Your task to perform on an android device: Open Yahoo.com Image 0: 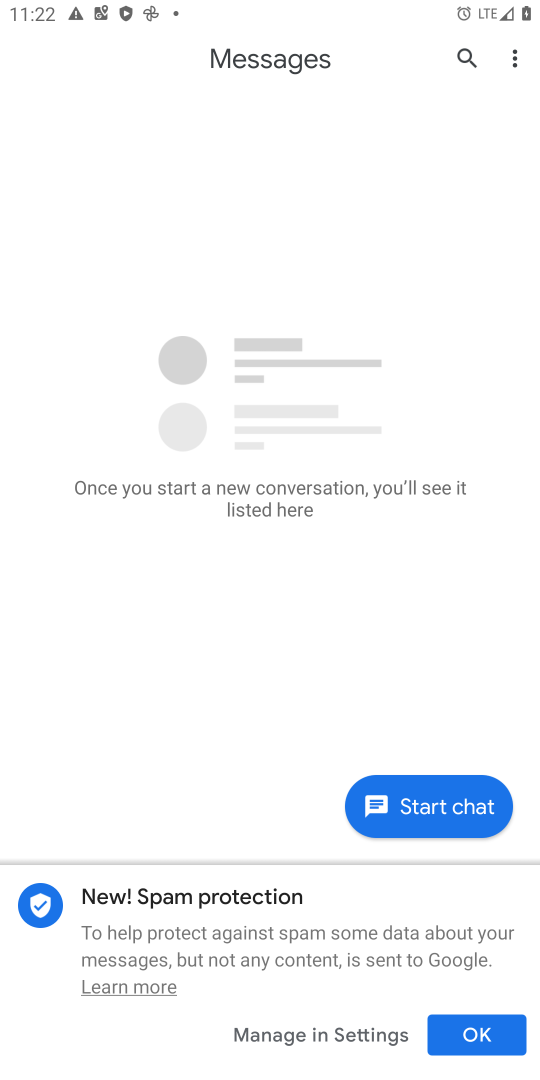
Step 0: press home button
Your task to perform on an android device: Open Yahoo.com Image 1: 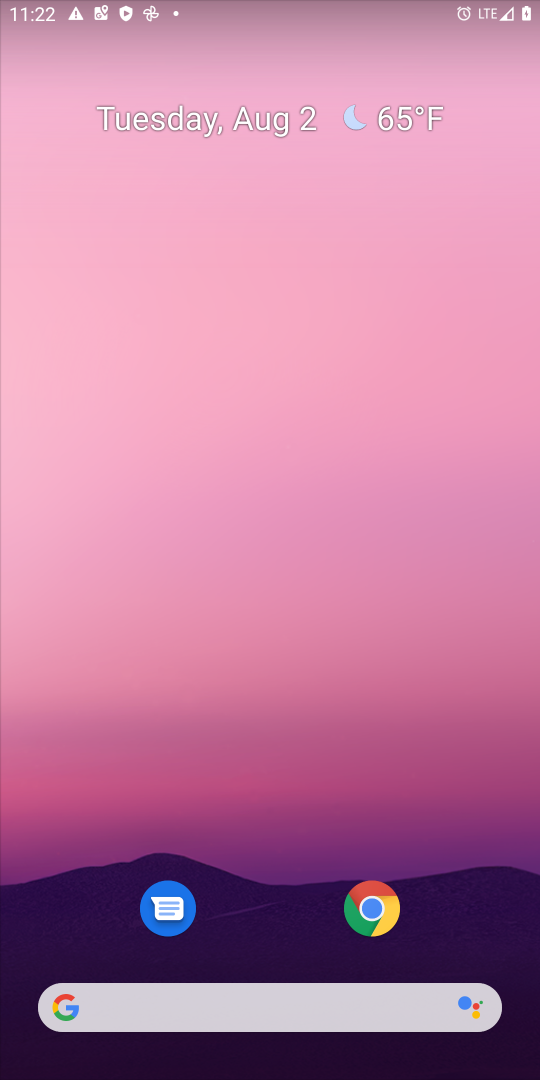
Step 1: drag from (336, 455) to (321, 84)
Your task to perform on an android device: Open Yahoo.com Image 2: 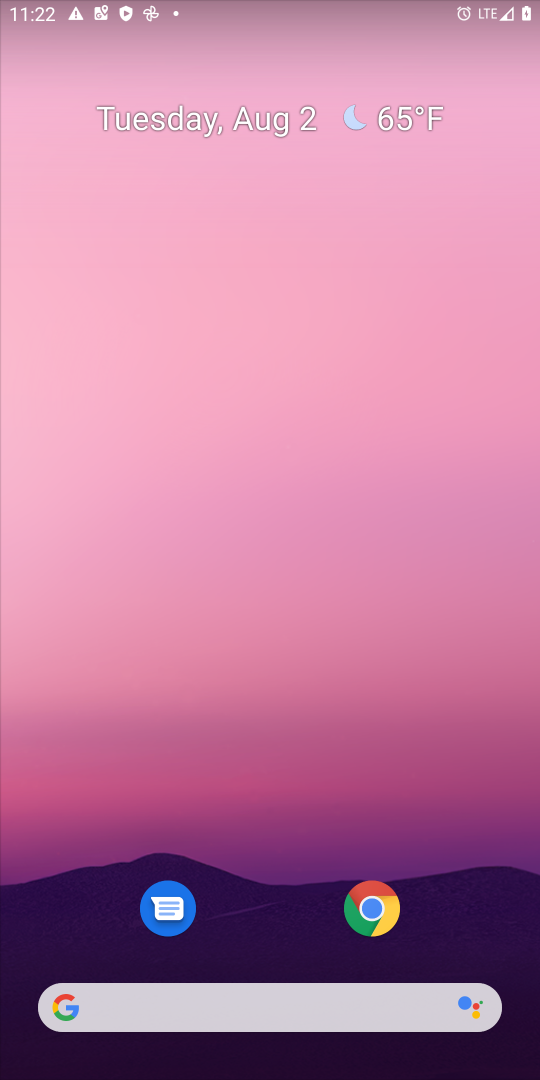
Step 2: drag from (244, 889) to (404, 29)
Your task to perform on an android device: Open Yahoo.com Image 3: 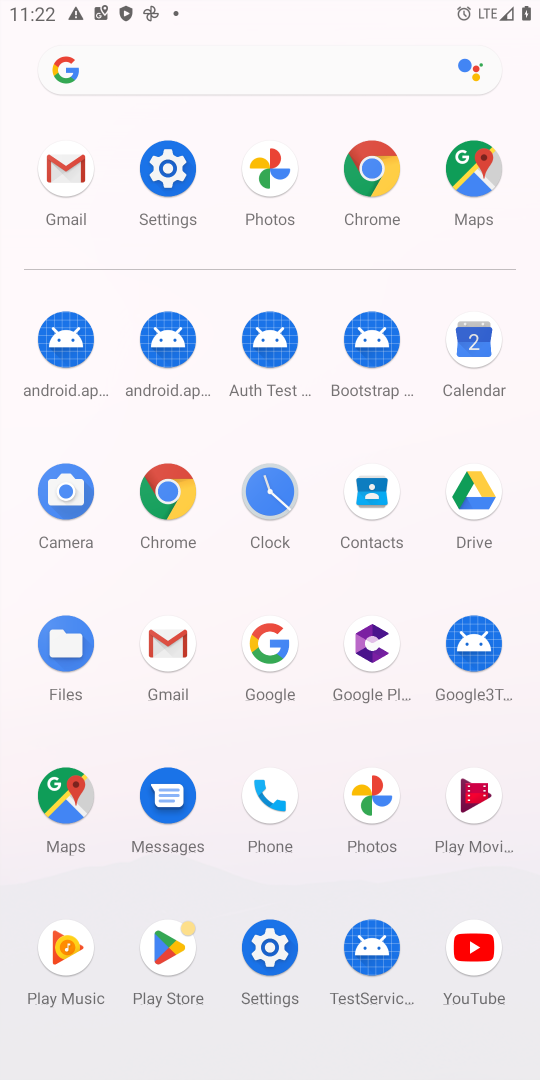
Step 3: click (354, 191)
Your task to perform on an android device: Open Yahoo.com Image 4: 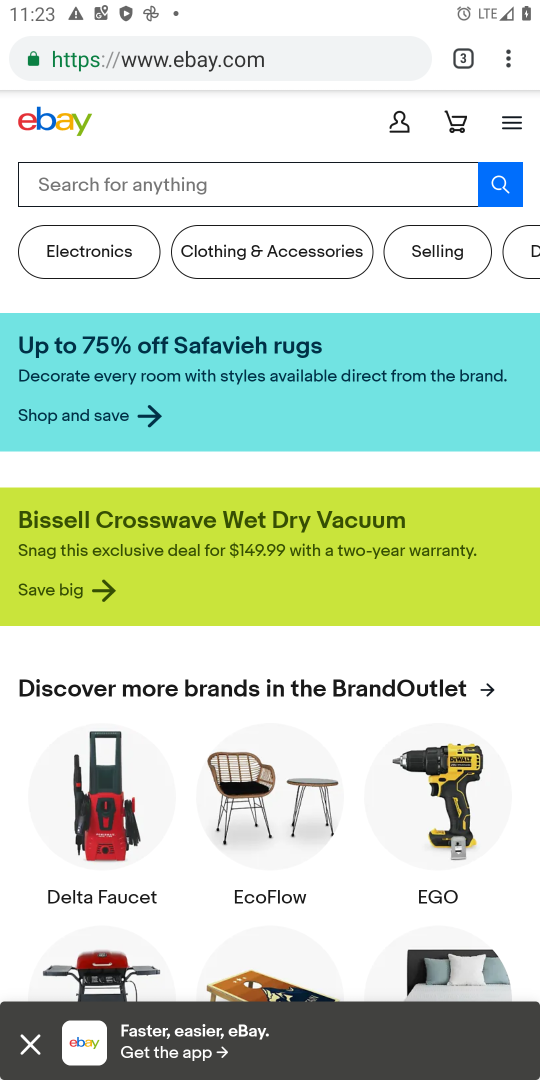
Step 4: click (465, 53)
Your task to perform on an android device: Open Yahoo.com Image 5: 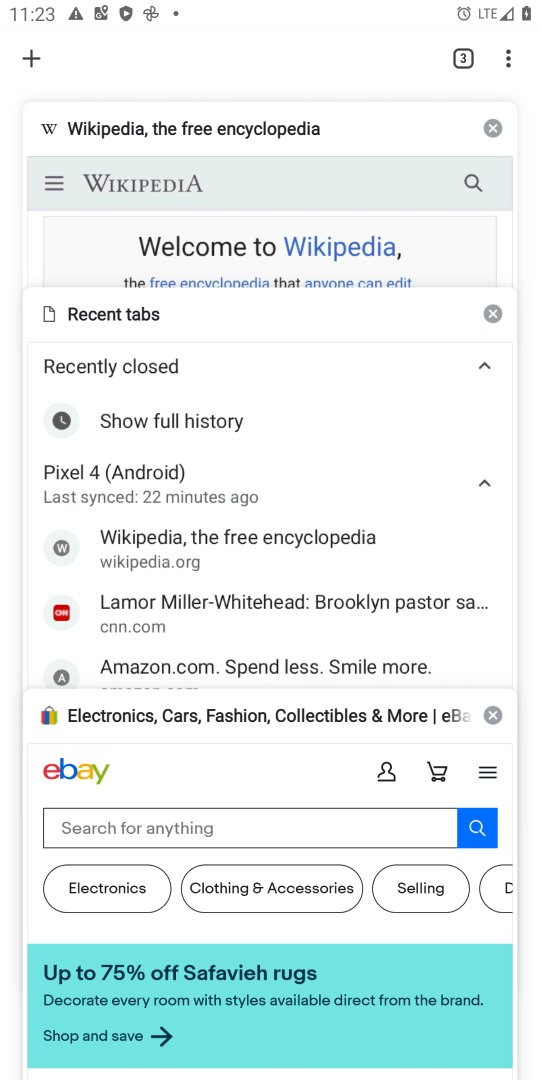
Step 5: click (36, 60)
Your task to perform on an android device: Open Yahoo.com Image 6: 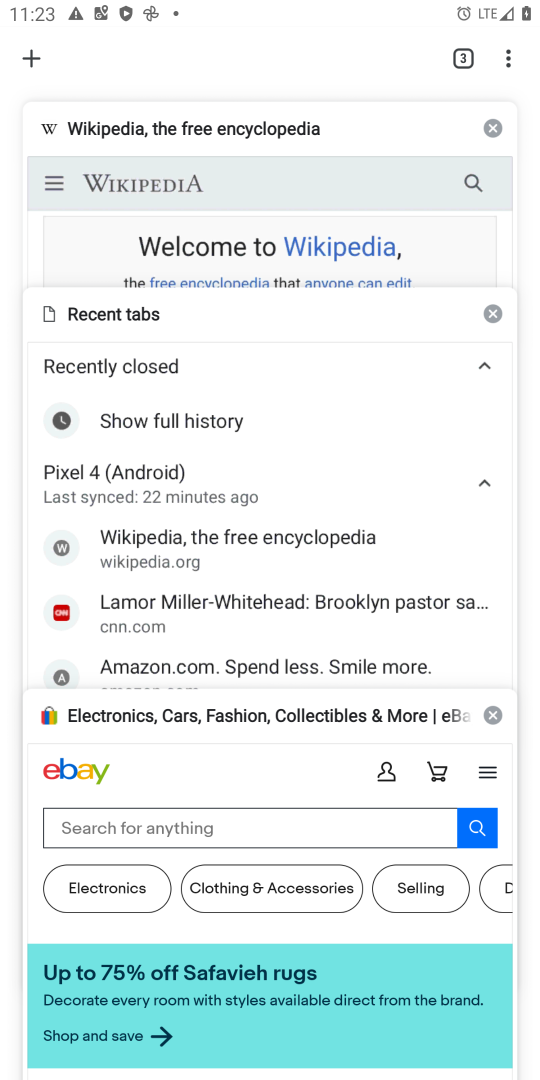
Step 6: click (39, 67)
Your task to perform on an android device: Open Yahoo.com Image 7: 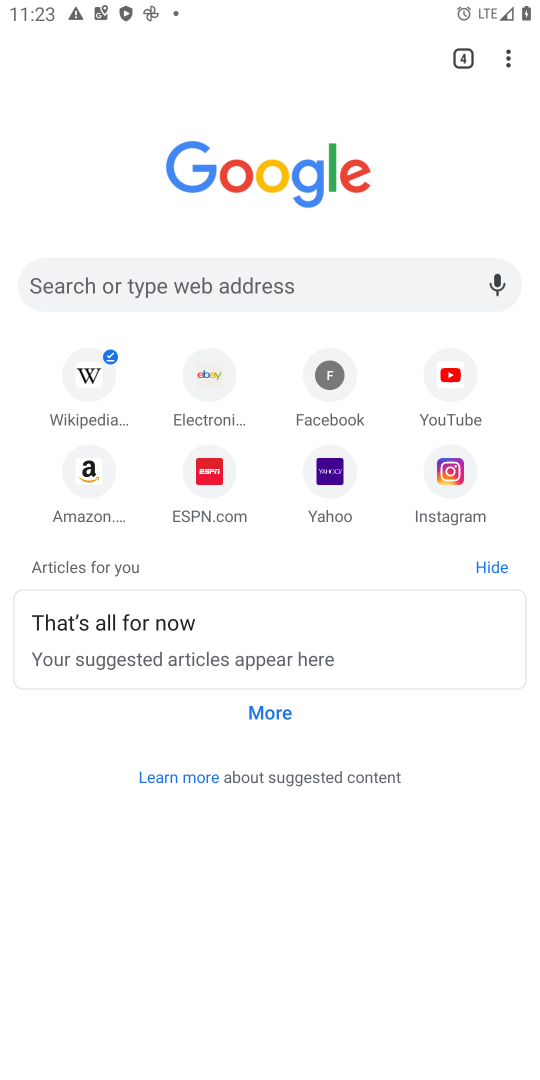
Step 7: click (331, 484)
Your task to perform on an android device: Open Yahoo.com Image 8: 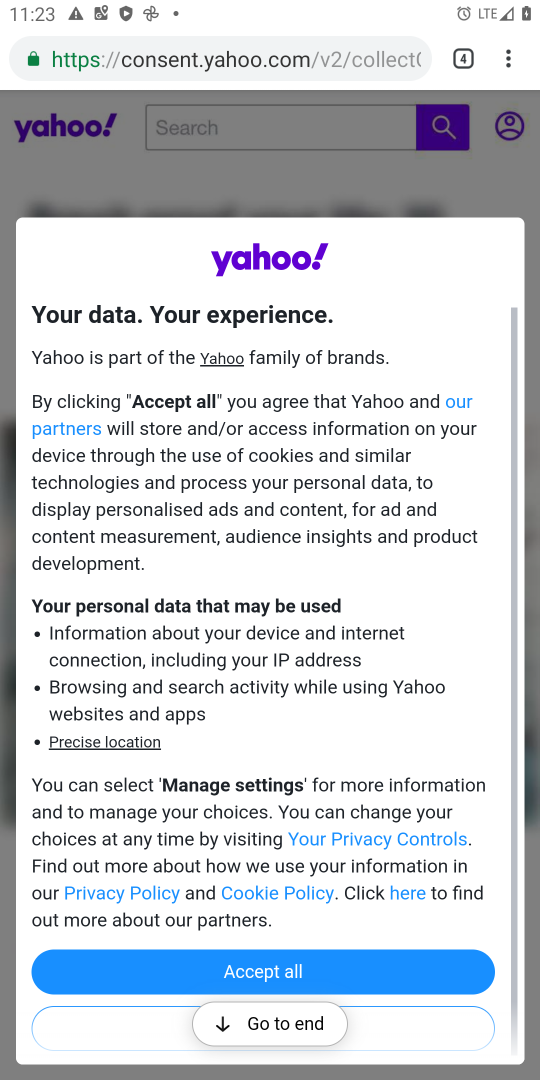
Step 8: click (298, 967)
Your task to perform on an android device: Open Yahoo.com Image 9: 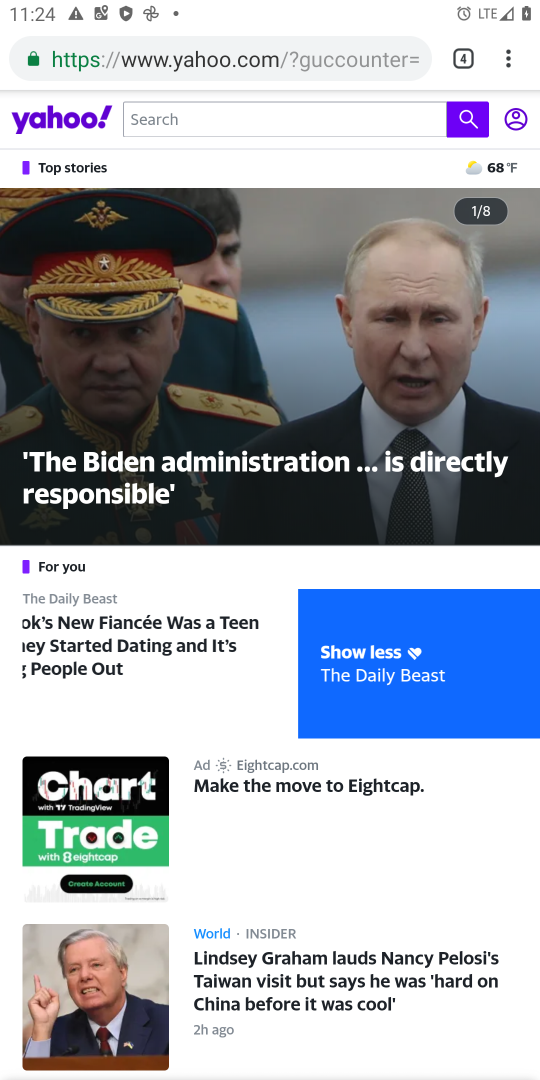
Step 9: task complete